Your task to perform on an android device: When is my next meeting? Image 0: 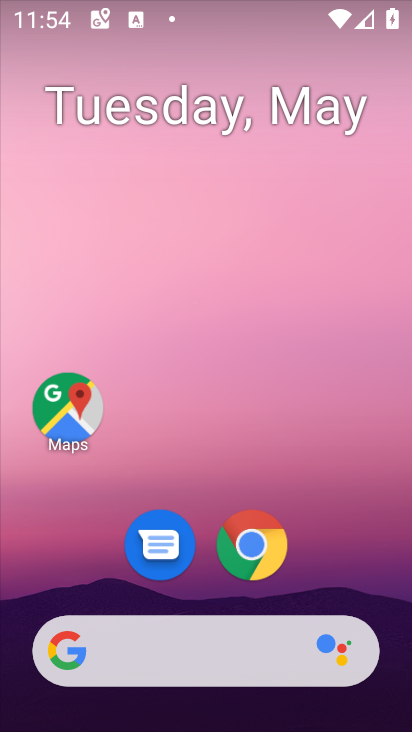
Step 0: drag from (224, 576) to (277, 198)
Your task to perform on an android device: When is my next meeting? Image 1: 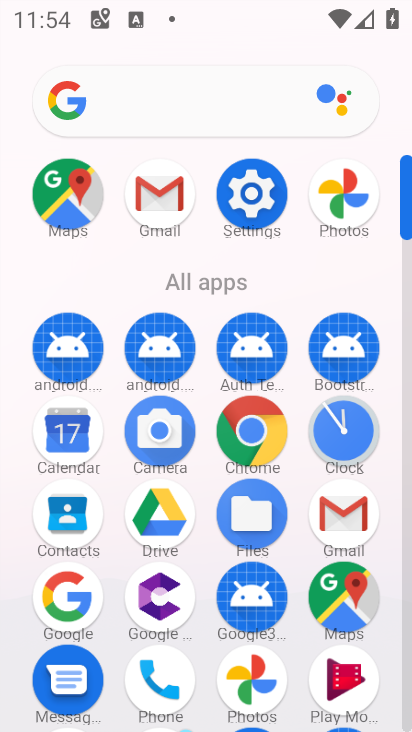
Step 1: click (60, 426)
Your task to perform on an android device: When is my next meeting? Image 2: 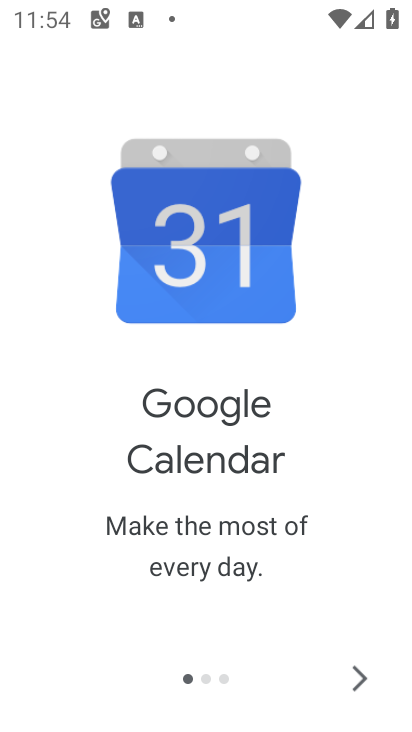
Step 2: click (356, 680)
Your task to perform on an android device: When is my next meeting? Image 3: 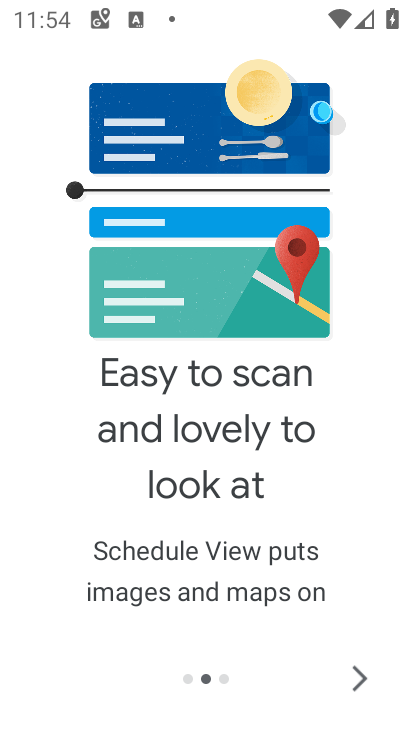
Step 3: click (356, 680)
Your task to perform on an android device: When is my next meeting? Image 4: 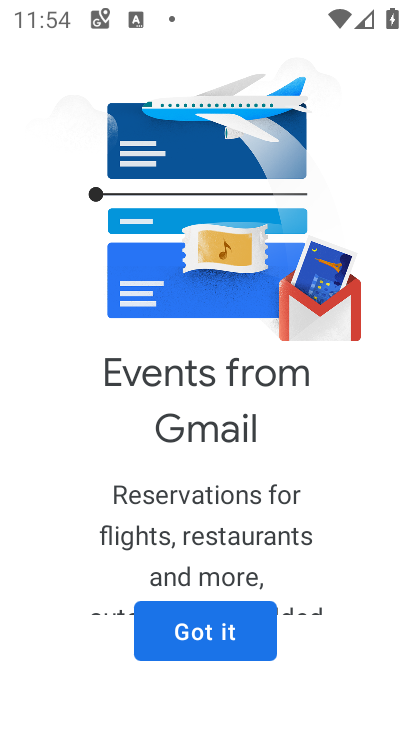
Step 4: click (356, 680)
Your task to perform on an android device: When is my next meeting? Image 5: 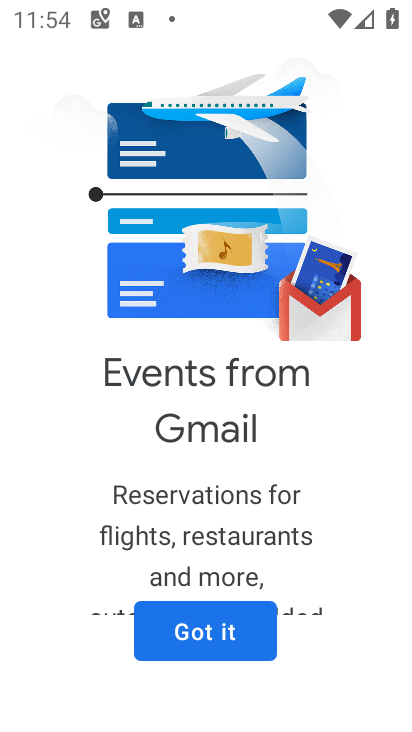
Step 5: click (244, 640)
Your task to perform on an android device: When is my next meeting? Image 6: 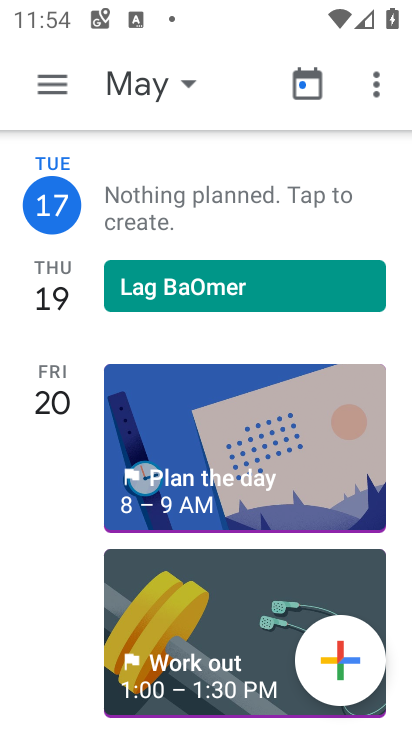
Step 6: click (182, 93)
Your task to perform on an android device: When is my next meeting? Image 7: 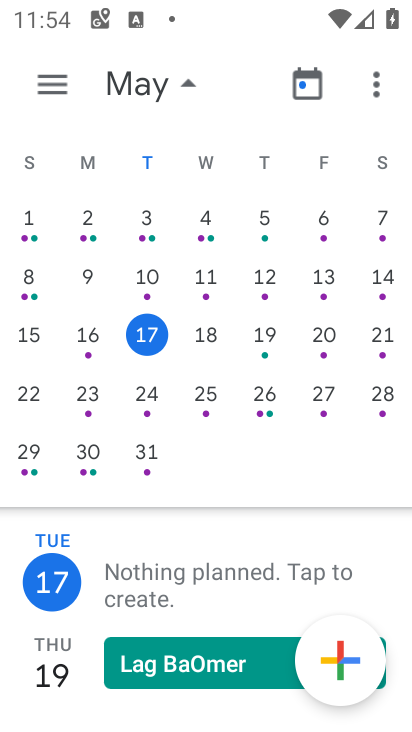
Step 7: click (194, 338)
Your task to perform on an android device: When is my next meeting? Image 8: 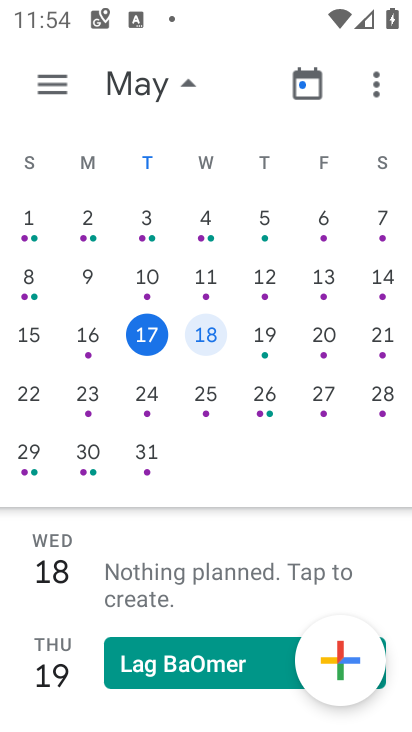
Step 8: task complete